Your task to perform on an android device: check the backup settings in the google photos Image 0: 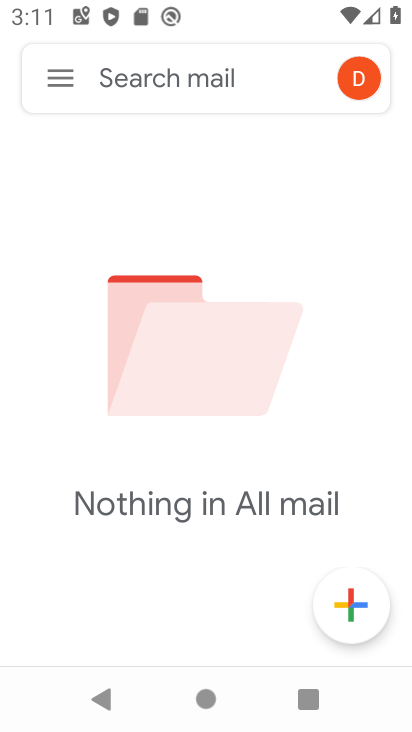
Step 0: press home button
Your task to perform on an android device: check the backup settings in the google photos Image 1: 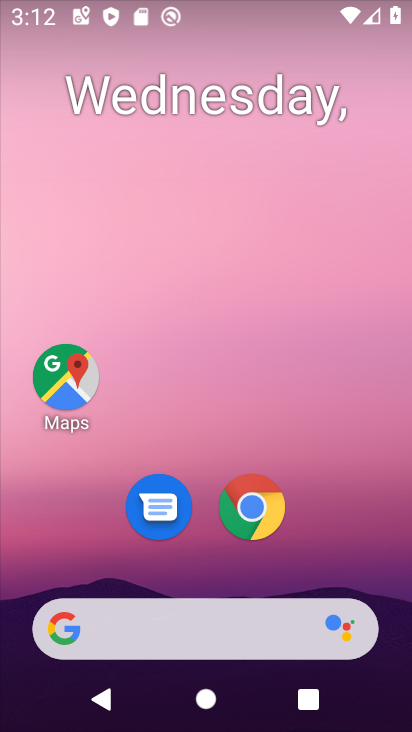
Step 1: drag from (298, 530) to (287, 417)
Your task to perform on an android device: check the backup settings in the google photos Image 2: 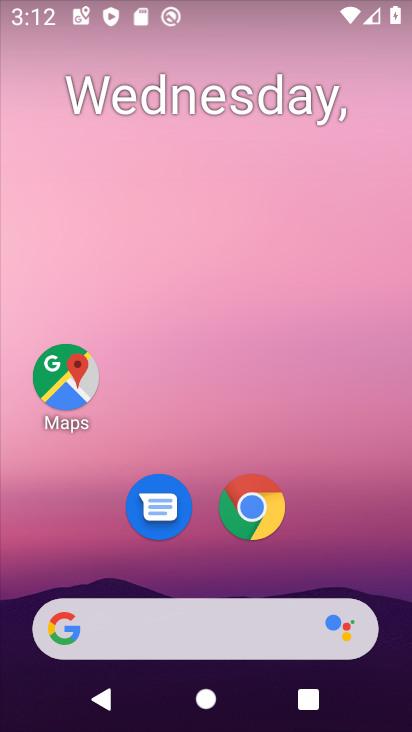
Step 2: drag from (359, 523) to (349, 163)
Your task to perform on an android device: check the backup settings in the google photos Image 3: 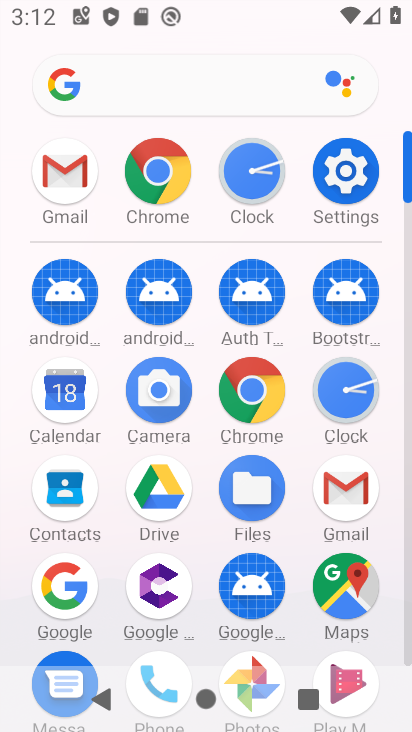
Step 3: drag from (284, 584) to (296, 298)
Your task to perform on an android device: check the backup settings in the google photos Image 4: 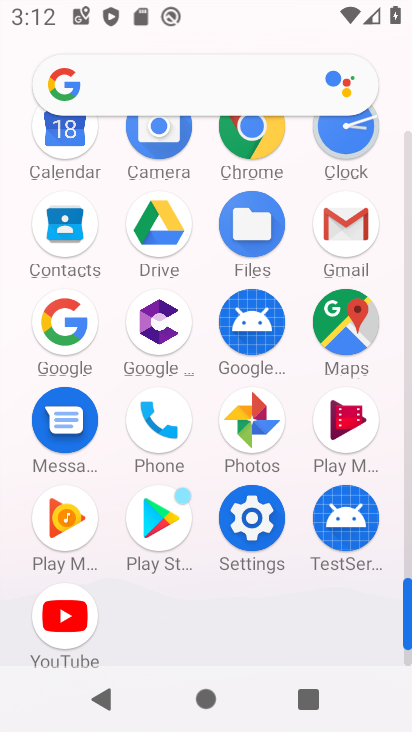
Step 4: click (225, 428)
Your task to perform on an android device: check the backup settings in the google photos Image 5: 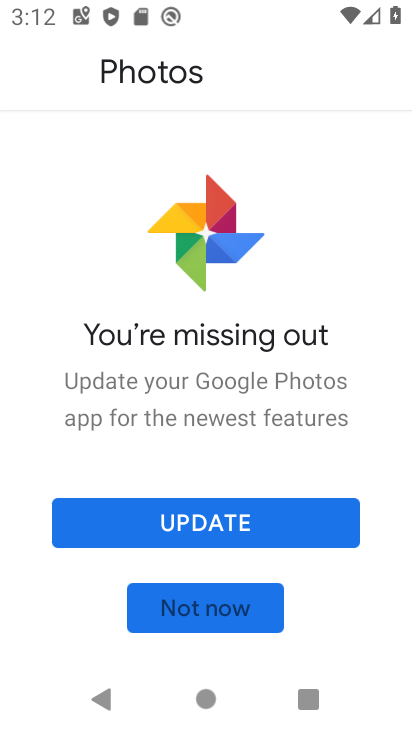
Step 5: click (213, 523)
Your task to perform on an android device: check the backup settings in the google photos Image 6: 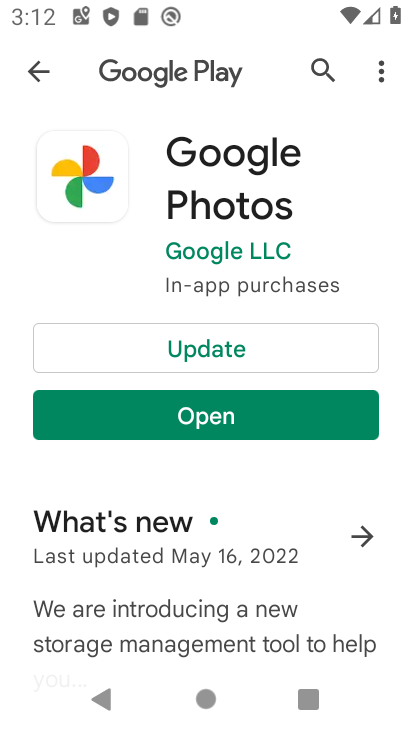
Step 6: click (239, 414)
Your task to perform on an android device: check the backup settings in the google photos Image 7: 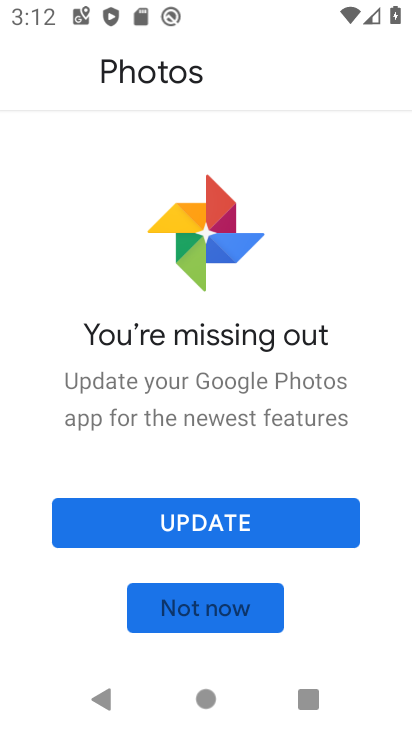
Step 7: click (191, 517)
Your task to perform on an android device: check the backup settings in the google photos Image 8: 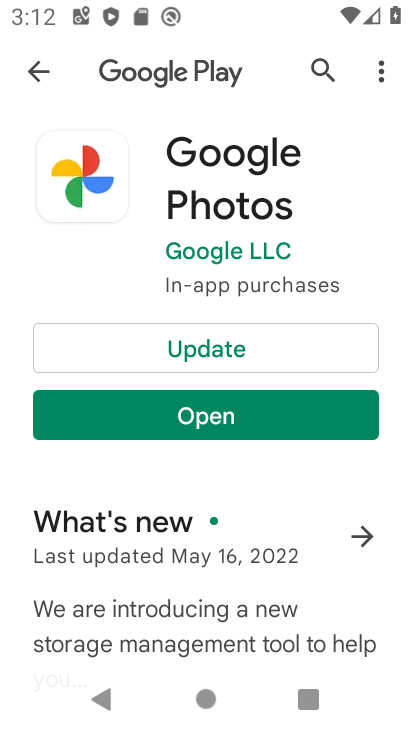
Step 8: click (227, 396)
Your task to perform on an android device: check the backup settings in the google photos Image 9: 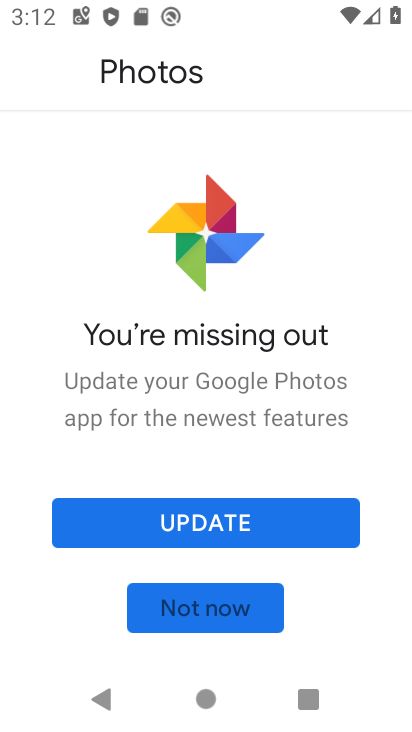
Step 9: click (213, 509)
Your task to perform on an android device: check the backup settings in the google photos Image 10: 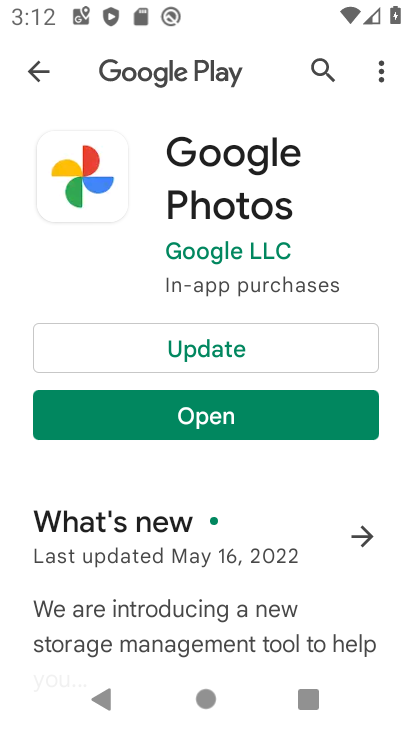
Step 10: click (223, 341)
Your task to perform on an android device: check the backup settings in the google photos Image 11: 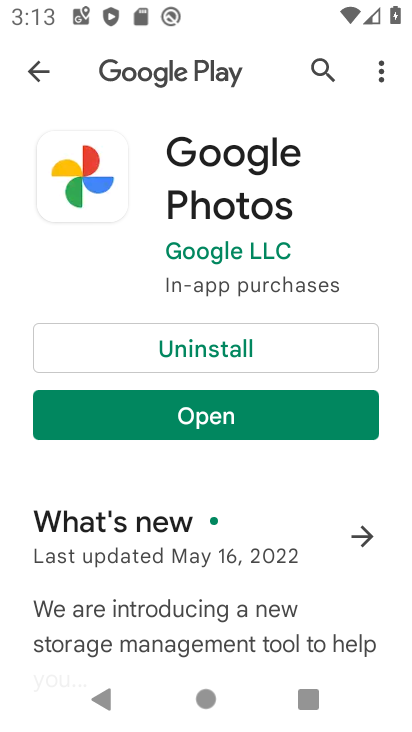
Step 11: click (184, 403)
Your task to perform on an android device: check the backup settings in the google photos Image 12: 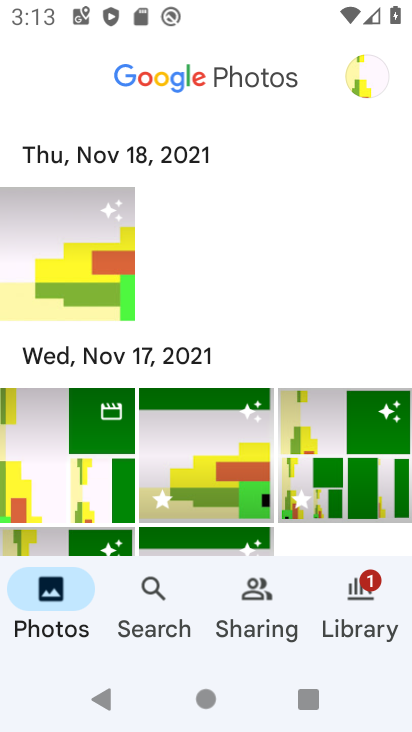
Step 12: click (325, 83)
Your task to perform on an android device: check the backup settings in the google photos Image 13: 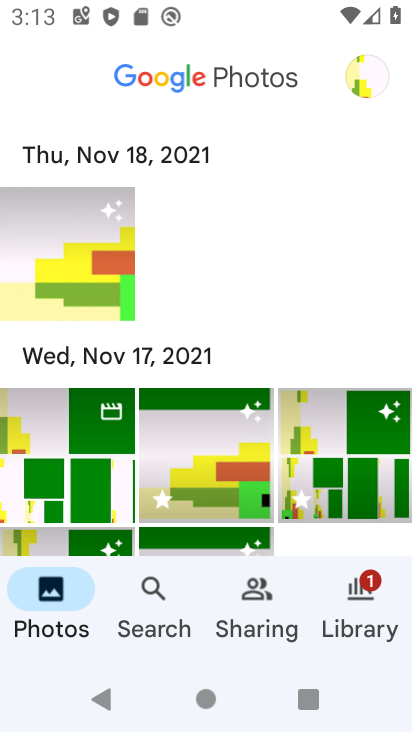
Step 13: click (342, 87)
Your task to perform on an android device: check the backup settings in the google photos Image 14: 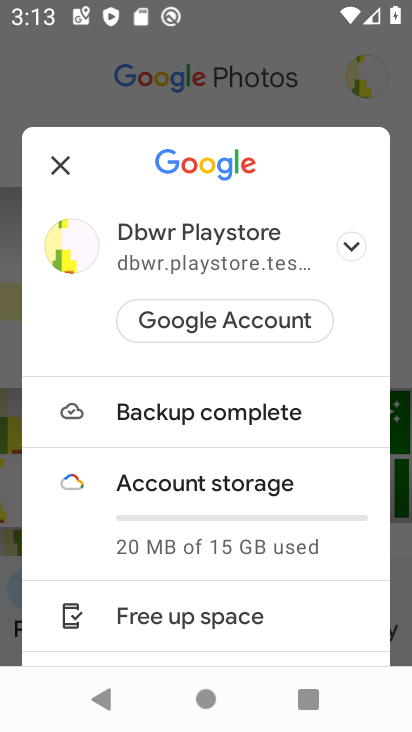
Step 14: drag from (260, 535) to (294, 198)
Your task to perform on an android device: check the backup settings in the google photos Image 15: 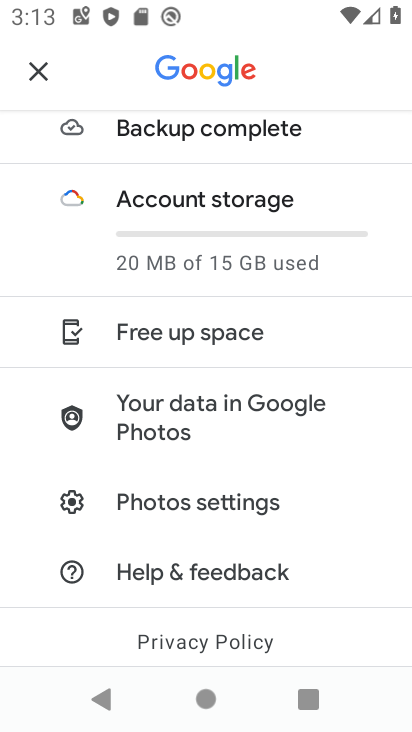
Step 15: click (172, 509)
Your task to perform on an android device: check the backup settings in the google photos Image 16: 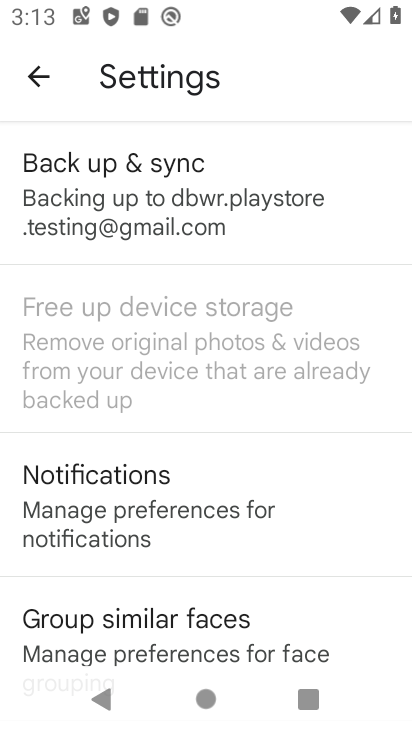
Step 16: drag from (179, 490) to (197, 239)
Your task to perform on an android device: check the backup settings in the google photos Image 17: 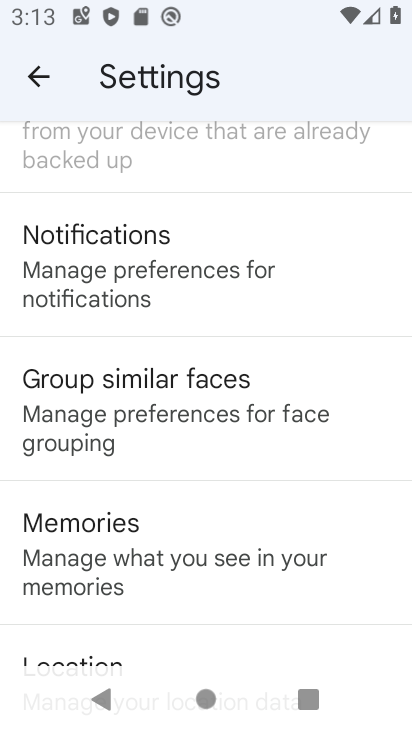
Step 17: drag from (183, 528) to (183, 281)
Your task to perform on an android device: check the backup settings in the google photos Image 18: 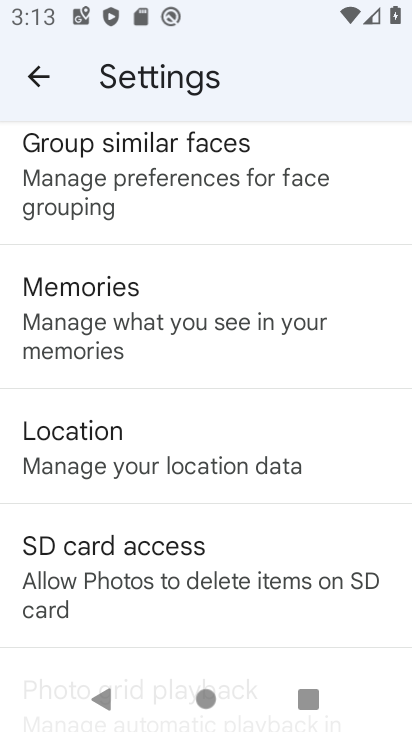
Step 18: drag from (176, 562) to (238, 231)
Your task to perform on an android device: check the backup settings in the google photos Image 19: 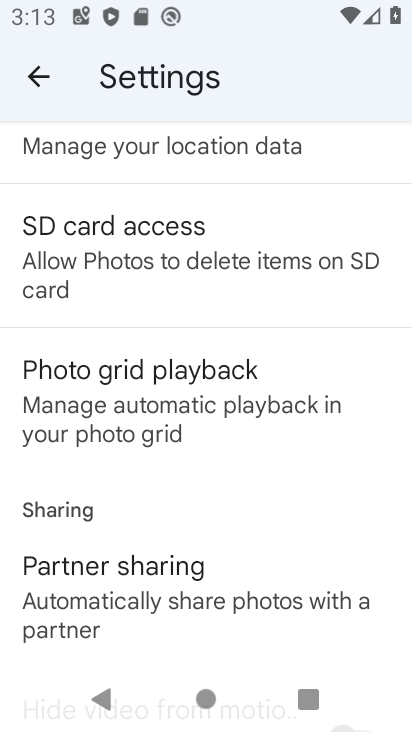
Step 19: drag from (175, 571) to (270, 231)
Your task to perform on an android device: check the backup settings in the google photos Image 20: 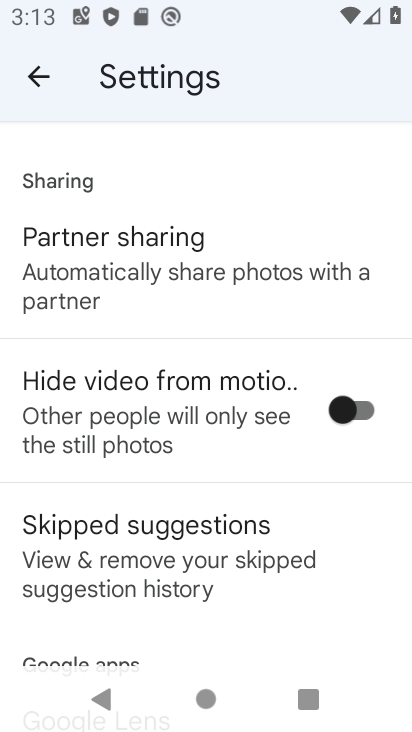
Step 20: drag from (256, 207) to (200, 518)
Your task to perform on an android device: check the backup settings in the google photos Image 21: 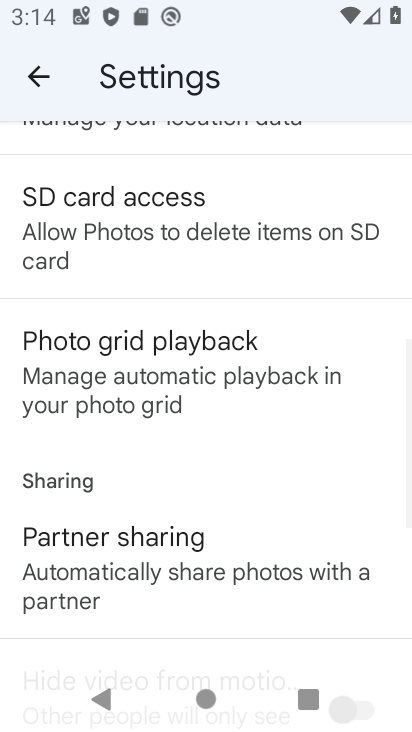
Step 21: drag from (278, 238) to (300, 514)
Your task to perform on an android device: check the backup settings in the google photos Image 22: 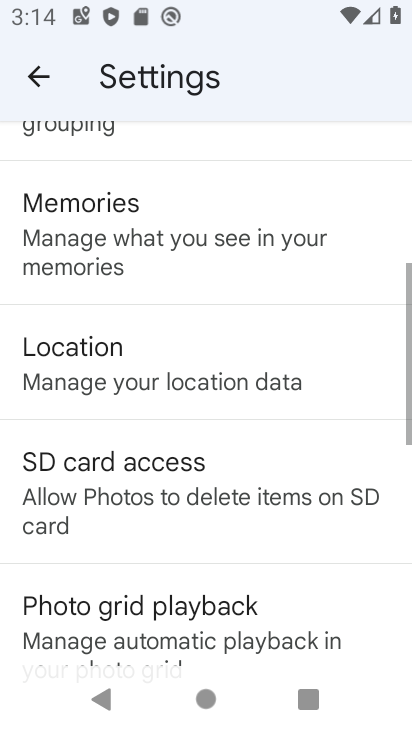
Step 22: drag from (306, 245) to (280, 583)
Your task to perform on an android device: check the backup settings in the google photos Image 23: 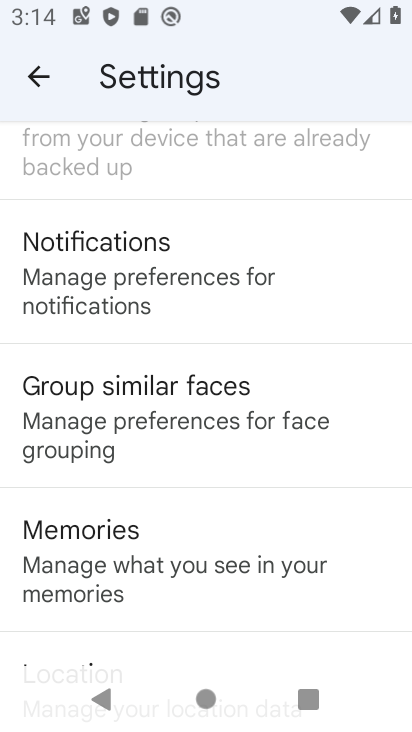
Step 23: drag from (245, 224) to (256, 512)
Your task to perform on an android device: check the backup settings in the google photos Image 24: 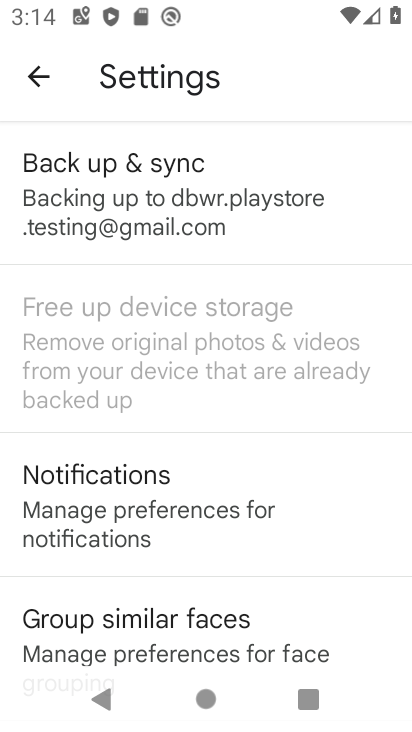
Step 24: click (225, 184)
Your task to perform on an android device: check the backup settings in the google photos Image 25: 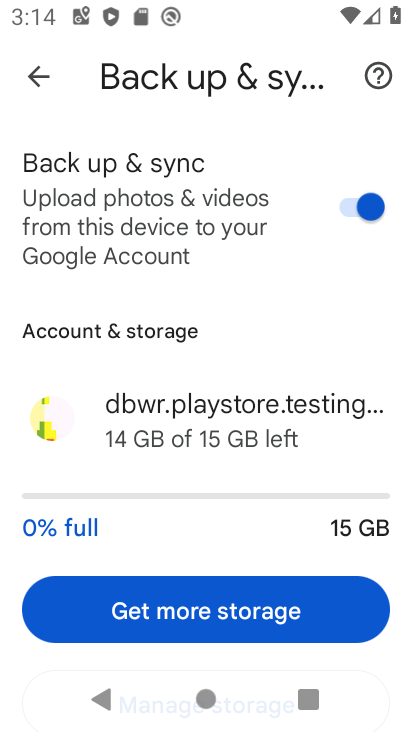
Step 25: task complete